Your task to perform on an android device: turn on the 24-hour format for clock Image 0: 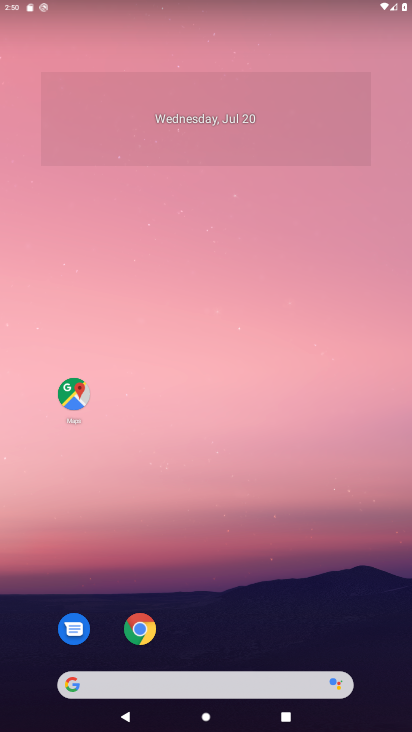
Step 0: drag from (221, 659) to (314, 155)
Your task to perform on an android device: turn on the 24-hour format for clock Image 1: 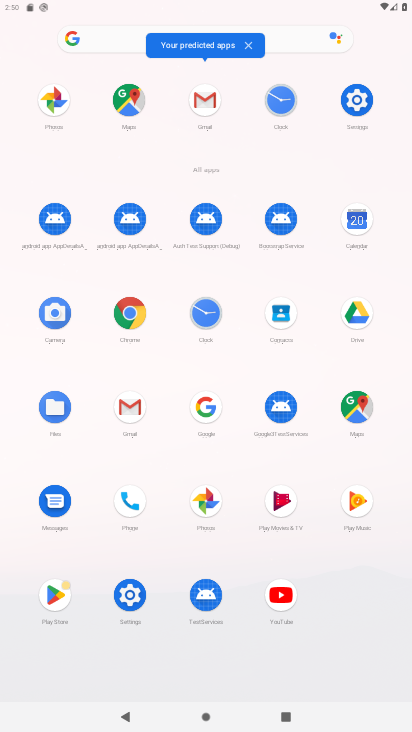
Step 1: click (190, 309)
Your task to perform on an android device: turn on the 24-hour format for clock Image 2: 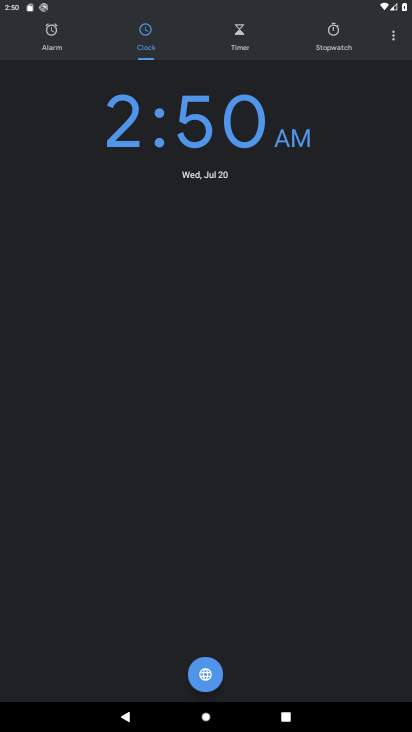
Step 2: click (396, 34)
Your task to perform on an android device: turn on the 24-hour format for clock Image 3: 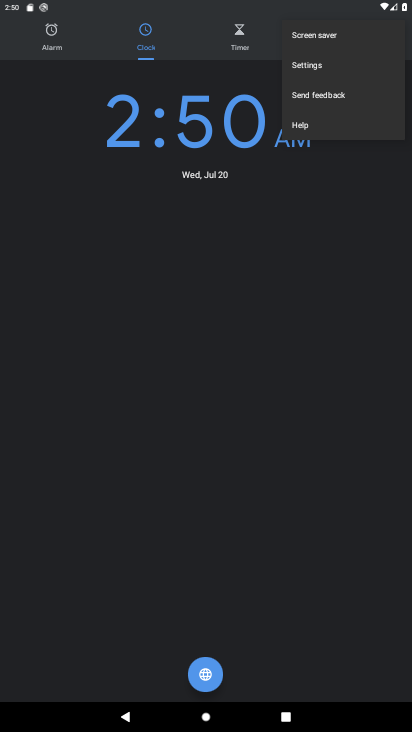
Step 3: click (367, 60)
Your task to perform on an android device: turn on the 24-hour format for clock Image 4: 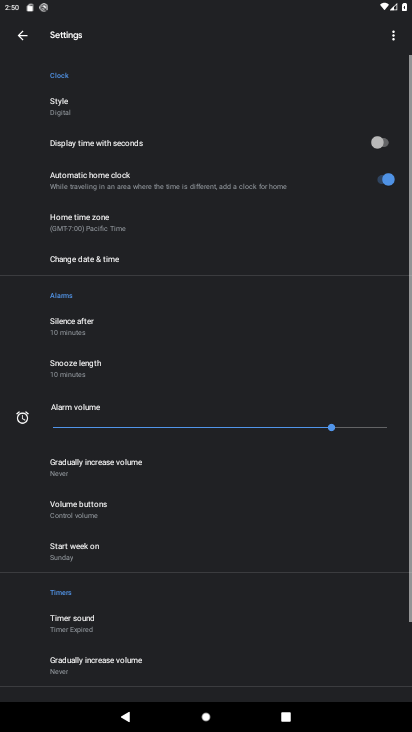
Step 4: click (249, 264)
Your task to perform on an android device: turn on the 24-hour format for clock Image 5: 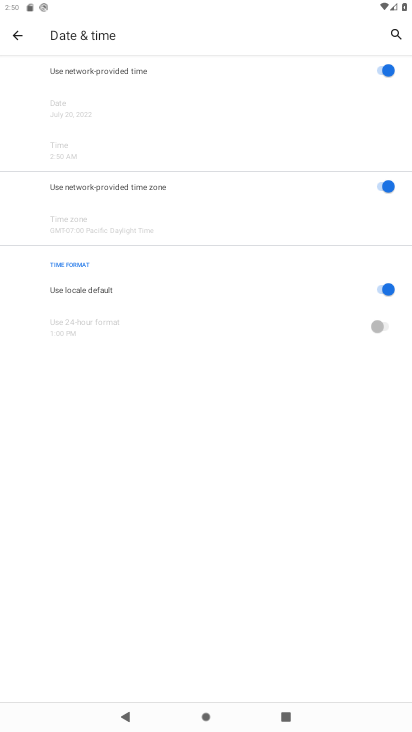
Step 5: click (386, 275)
Your task to perform on an android device: turn on the 24-hour format for clock Image 6: 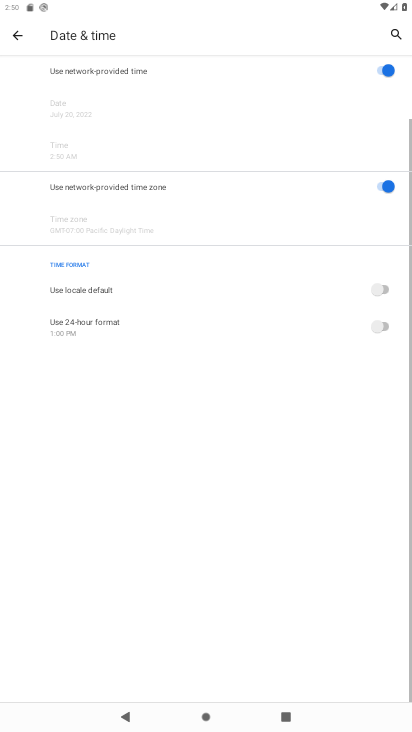
Step 6: click (392, 316)
Your task to perform on an android device: turn on the 24-hour format for clock Image 7: 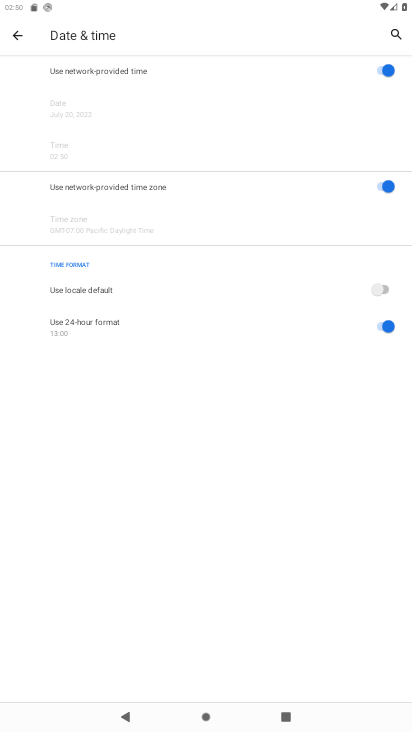
Step 7: task complete